Your task to perform on an android device: open device folders in google photos Image 0: 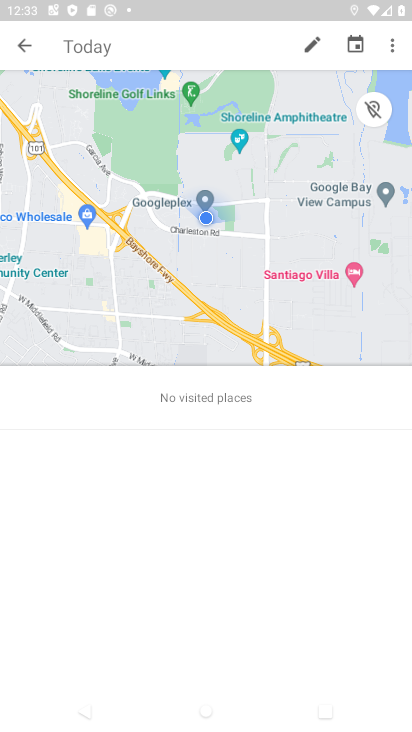
Step 0: press home button
Your task to perform on an android device: open device folders in google photos Image 1: 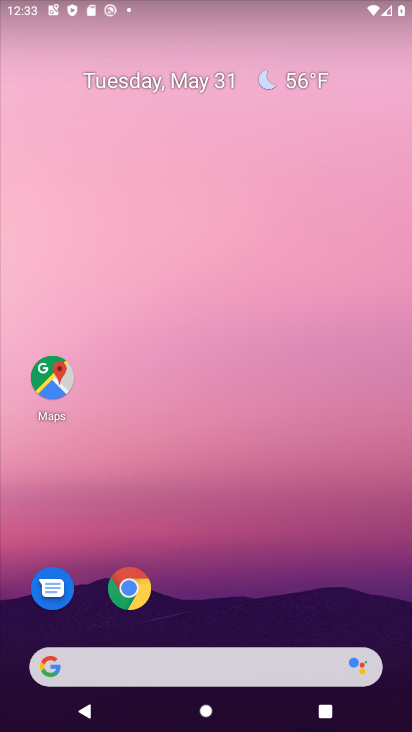
Step 1: drag from (179, 621) to (220, 57)
Your task to perform on an android device: open device folders in google photos Image 2: 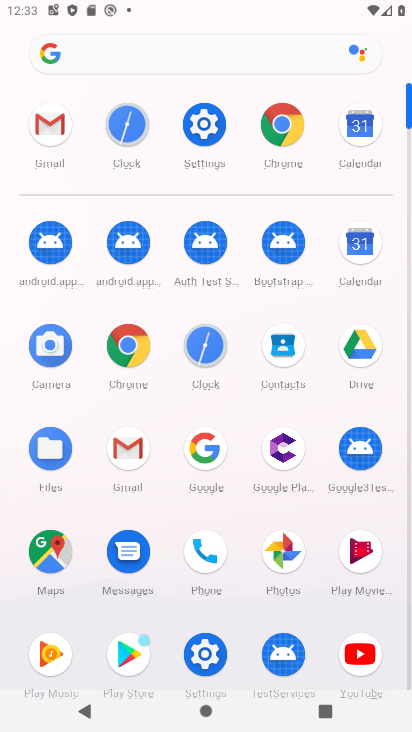
Step 2: click (278, 559)
Your task to perform on an android device: open device folders in google photos Image 3: 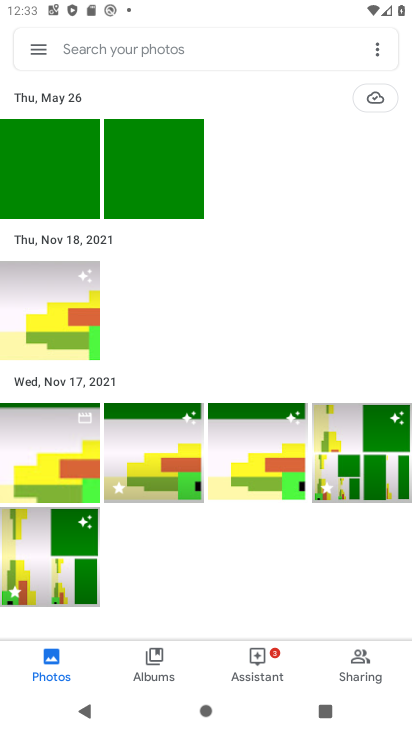
Step 3: click (37, 46)
Your task to perform on an android device: open device folders in google photos Image 4: 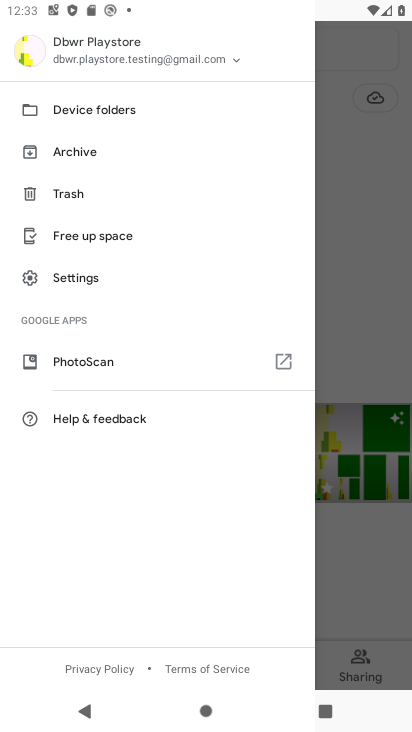
Step 4: click (89, 107)
Your task to perform on an android device: open device folders in google photos Image 5: 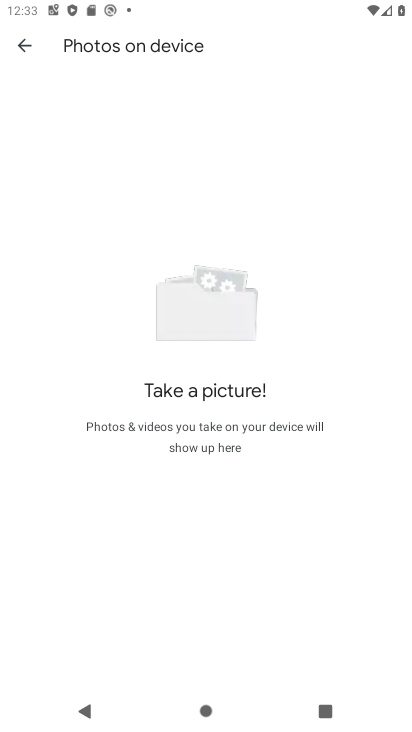
Step 5: task complete